Your task to perform on an android device: uninstall "Roku - Official Remote Control" Image 0: 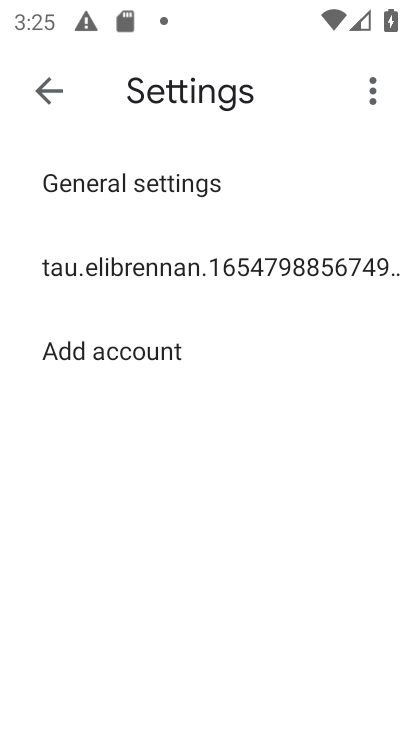
Step 0: press home button
Your task to perform on an android device: uninstall "Roku - Official Remote Control" Image 1: 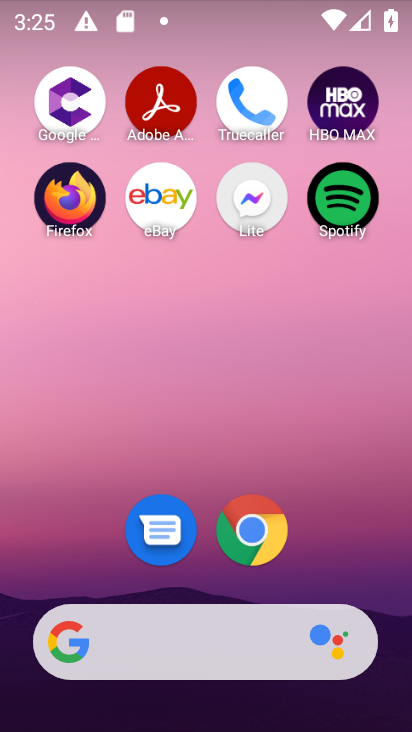
Step 1: drag from (354, 370) to (331, 23)
Your task to perform on an android device: uninstall "Roku - Official Remote Control" Image 2: 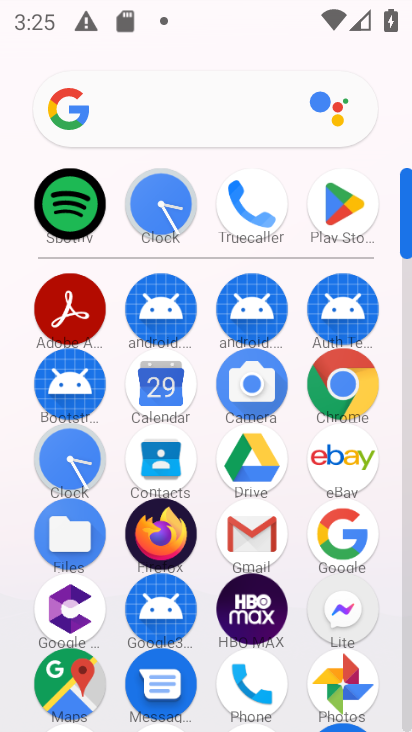
Step 2: click (326, 213)
Your task to perform on an android device: uninstall "Roku - Official Remote Control" Image 3: 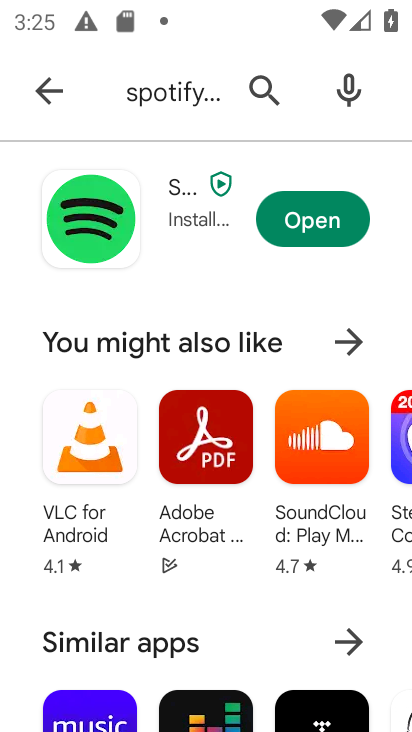
Step 3: click (271, 87)
Your task to perform on an android device: uninstall "Roku - Official Remote Control" Image 4: 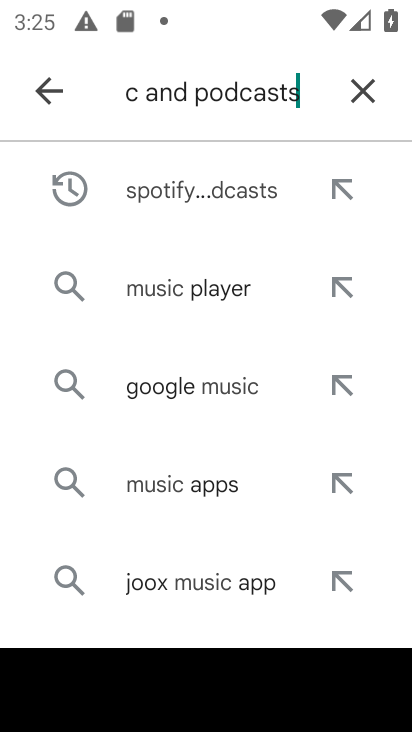
Step 4: click (353, 91)
Your task to perform on an android device: uninstall "Roku - Official Remote Control" Image 5: 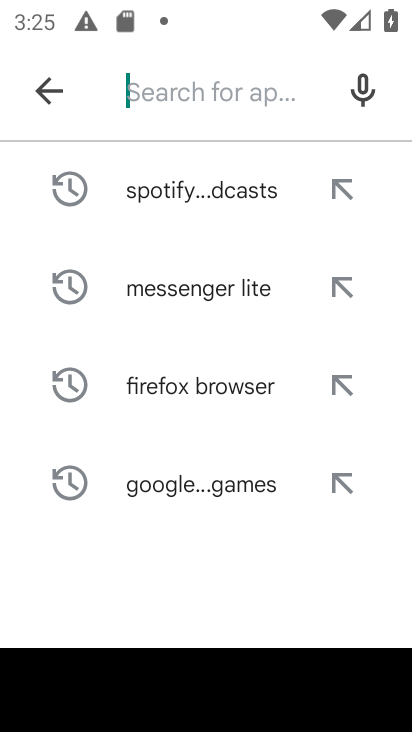
Step 5: type "Roku - Official Remote Control"
Your task to perform on an android device: uninstall "Roku - Official Remote Control" Image 6: 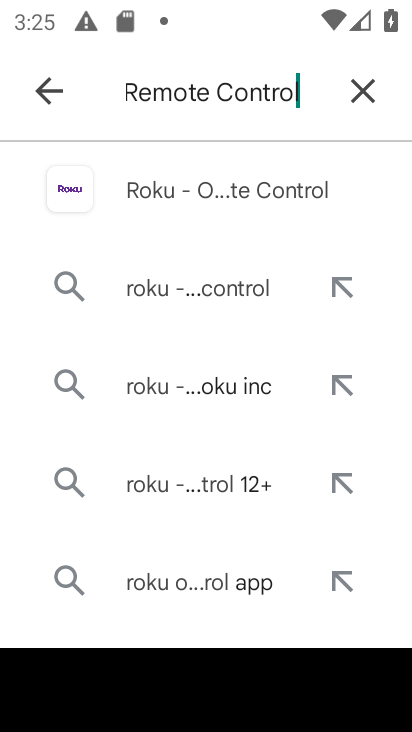
Step 6: click (157, 194)
Your task to perform on an android device: uninstall "Roku - Official Remote Control" Image 7: 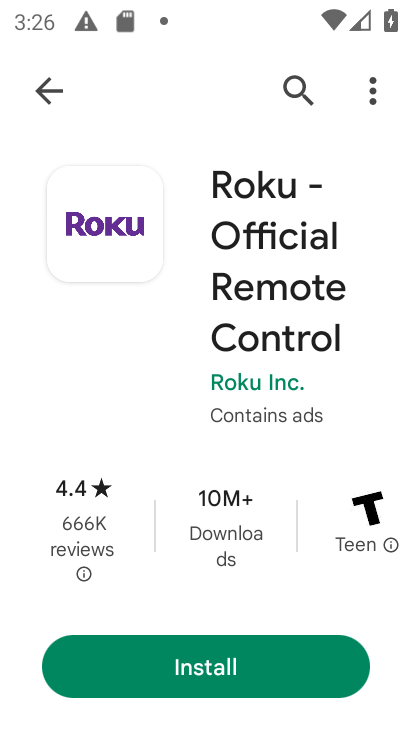
Step 7: task complete